Your task to perform on an android device: add a contact Image 0: 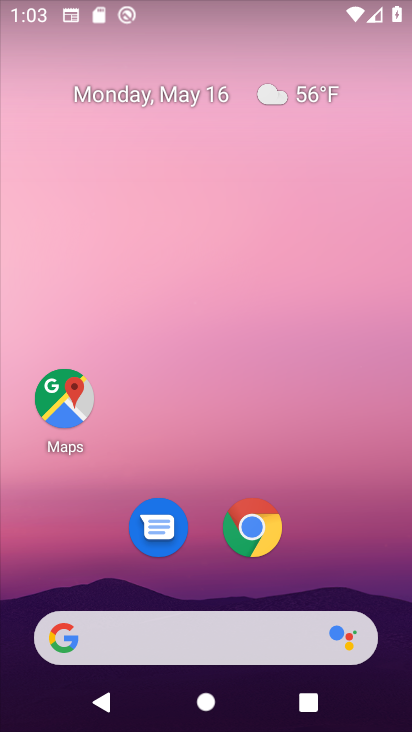
Step 0: drag from (164, 632) to (225, 2)
Your task to perform on an android device: add a contact Image 1: 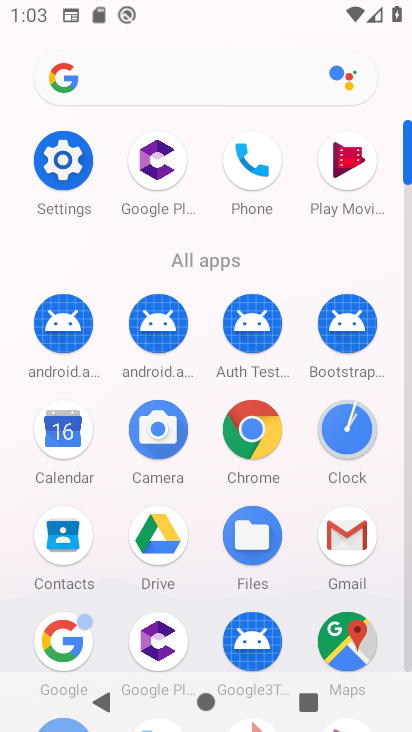
Step 1: click (42, 542)
Your task to perform on an android device: add a contact Image 2: 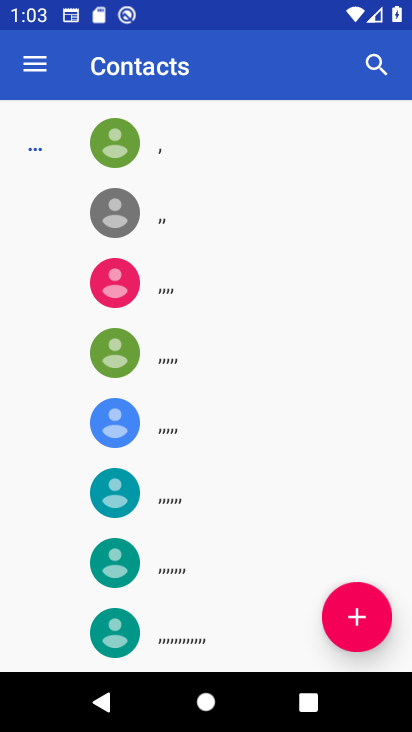
Step 2: click (369, 640)
Your task to perform on an android device: add a contact Image 3: 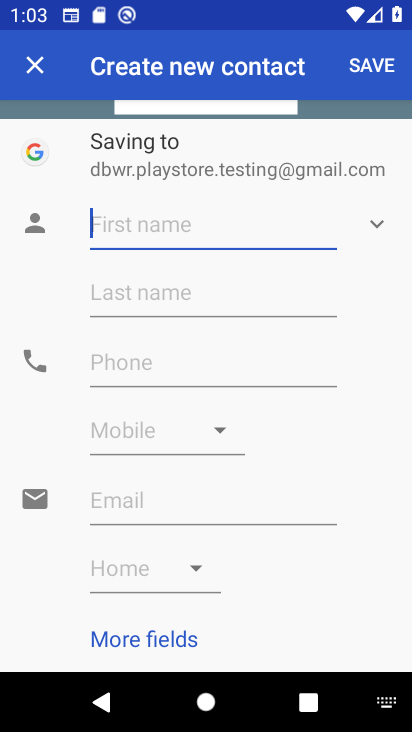
Step 3: type "hjkacas"
Your task to perform on an android device: add a contact Image 4: 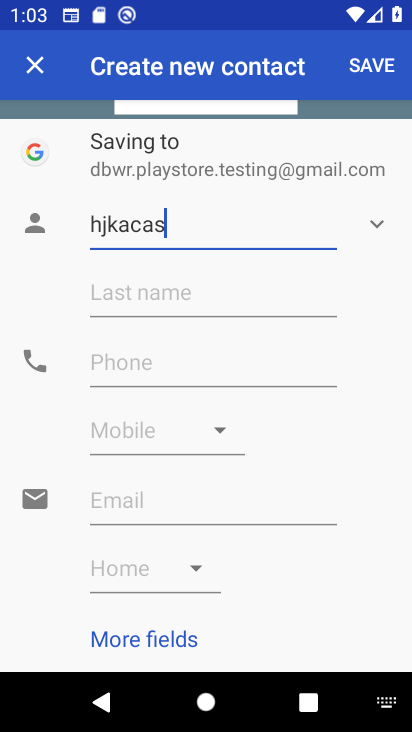
Step 4: click (156, 370)
Your task to perform on an android device: add a contact Image 5: 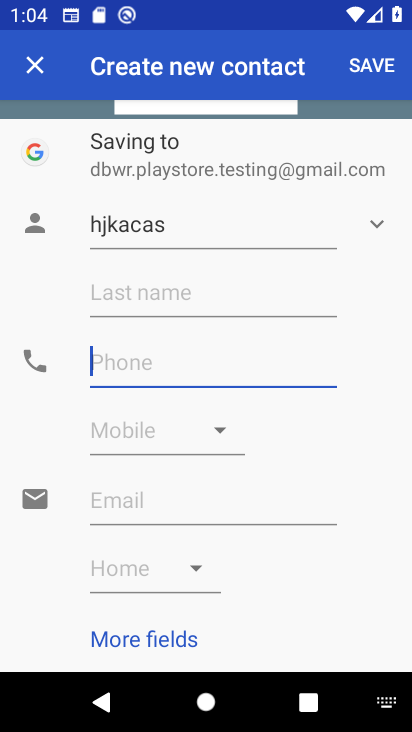
Step 5: type "239822"
Your task to perform on an android device: add a contact Image 6: 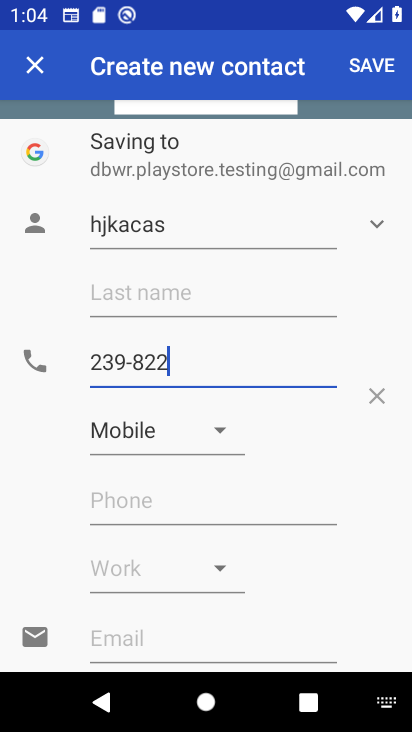
Step 6: click (366, 64)
Your task to perform on an android device: add a contact Image 7: 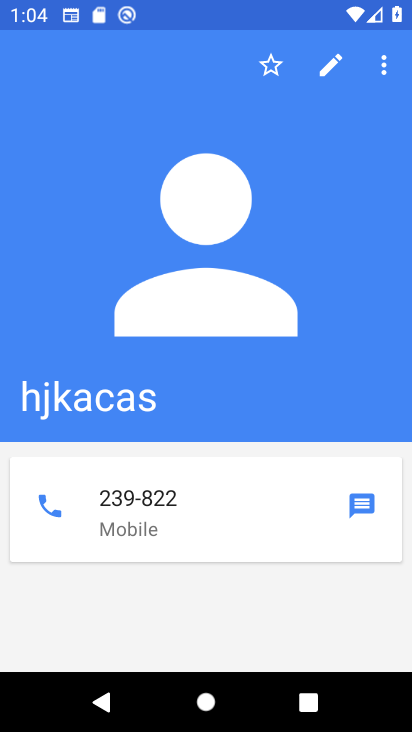
Step 7: task complete